Your task to perform on an android device: check storage Image 0: 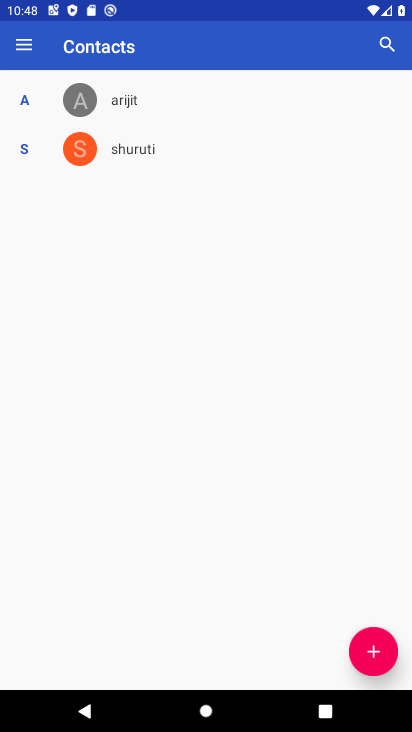
Step 0: press home button
Your task to perform on an android device: check storage Image 1: 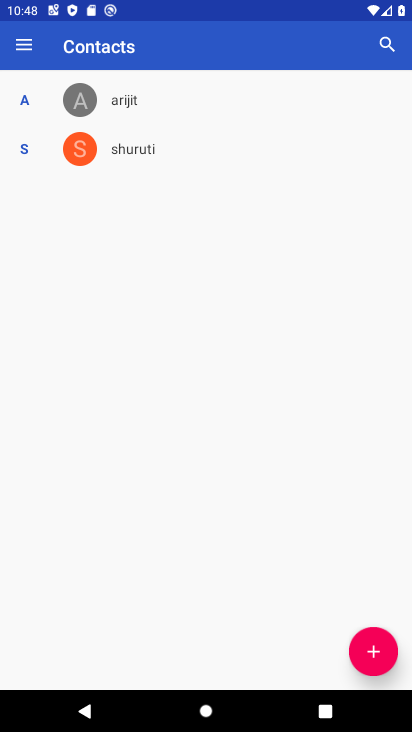
Step 1: press home button
Your task to perform on an android device: check storage Image 2: 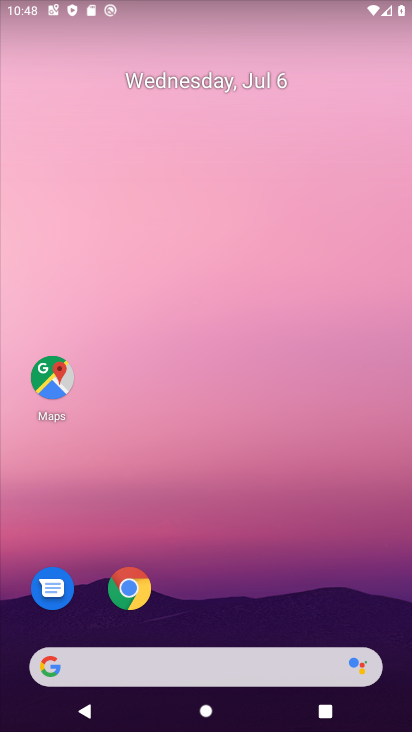
Step 2: drag from (268, 611) to (267, 127)
Your task to perform on an android device: check storage Image 3: 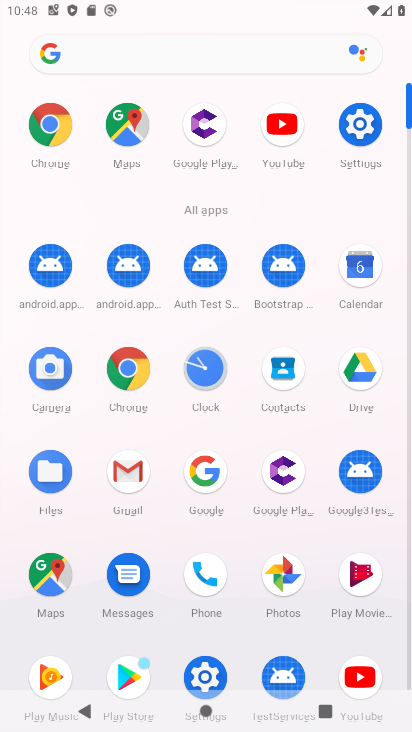
Step 3: click (362, 117)
Your task to perform on an android device: check storage Image 4: 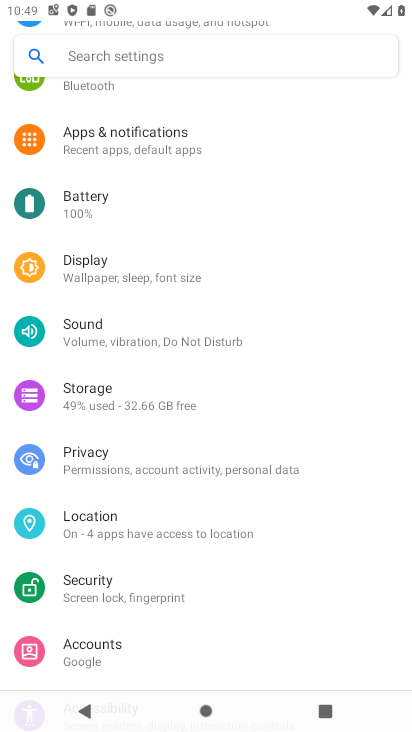
Step 4: click (115, 392)
Your task to perform on an android device: check storage Image 5: 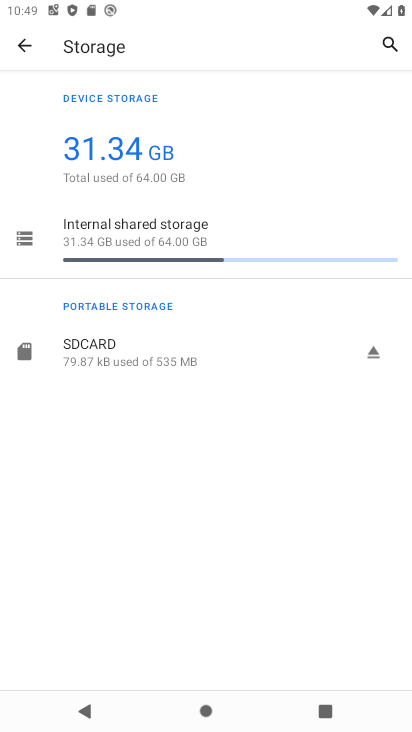
Step 5: task complete